Your task to perform on an android device: Go to Amazon Image 0: 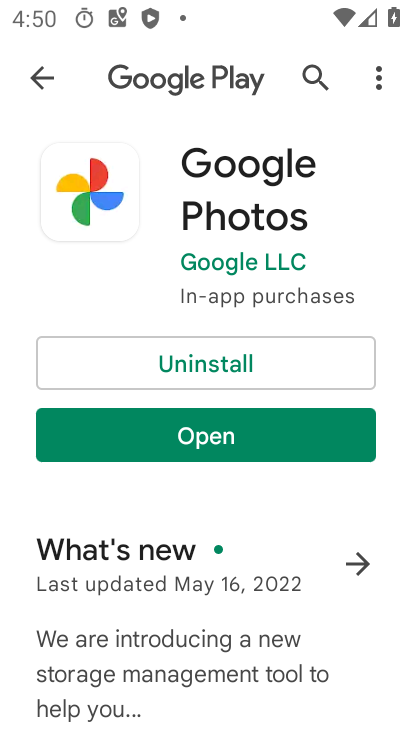
Step 0: press home button
Your task to perform on an android device: Go to Amazon Image 1: 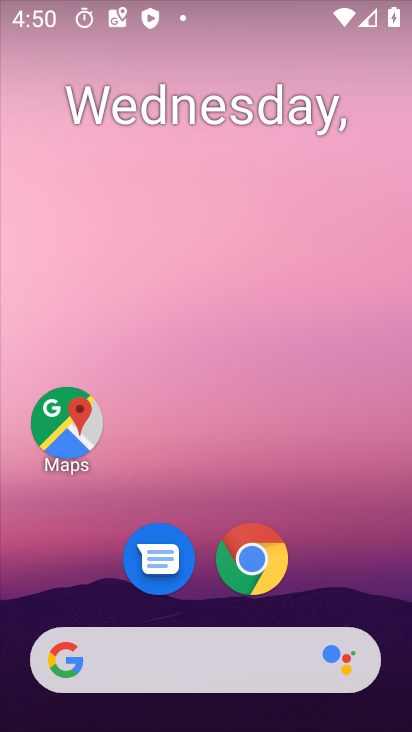
Step 1: click (248, 557)
Your task to perform on an android device: Go to Amazon Image 2: 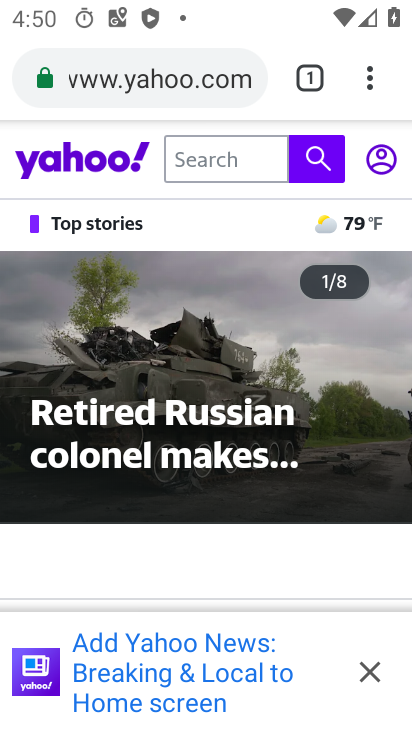
Step 2: click (309, 78)
Your task to perform on an android device: Go to Amazon Image 3: 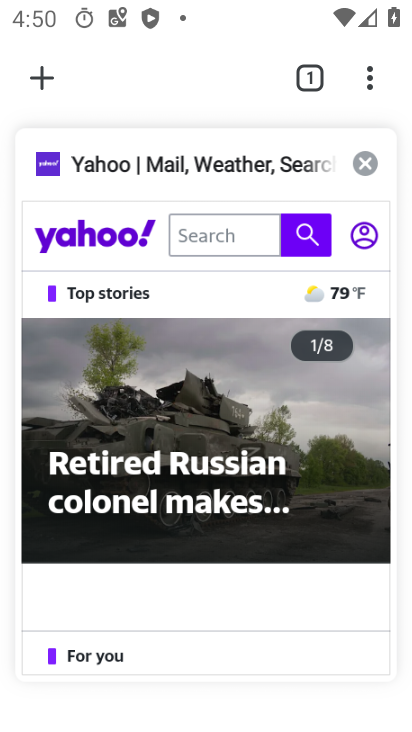
Step 3: click (35, 75)
Your task to perform on an android device: Go to Amazon Image 4: 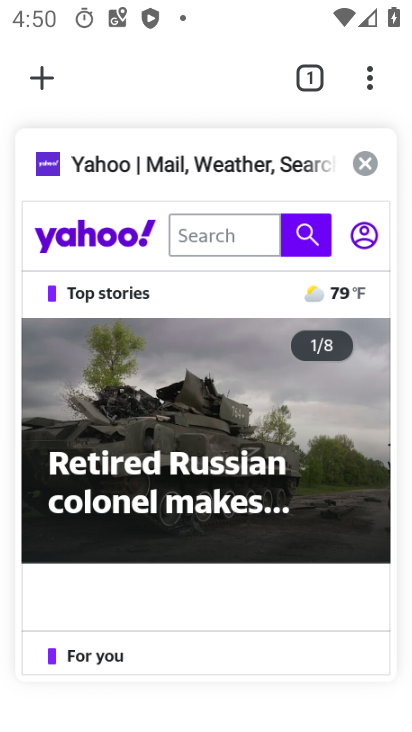
Step 4: click (36, 67)
Your task to perform on an android device: Go to Amazon Image 5: 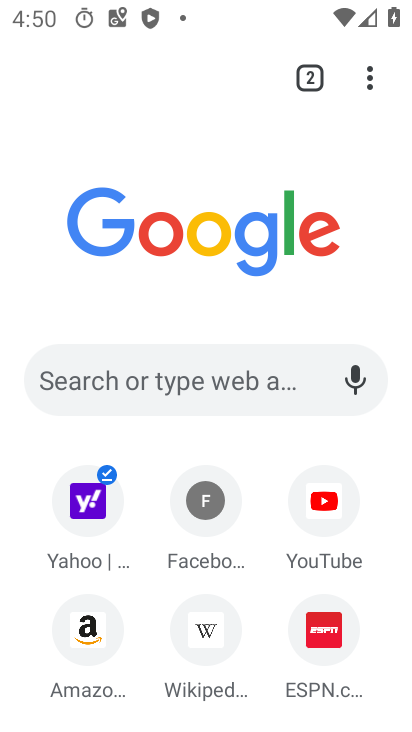
Step 5: click (90, 626)
Your task to perform on an android device: Go to Amazon Image 6: 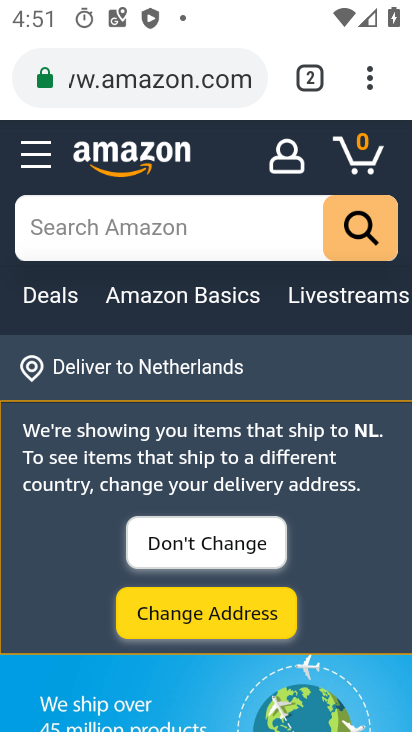
Step 6: task complete